Your task to perform on an android device: Open the phone app and click the voicemail tab. Image 0: 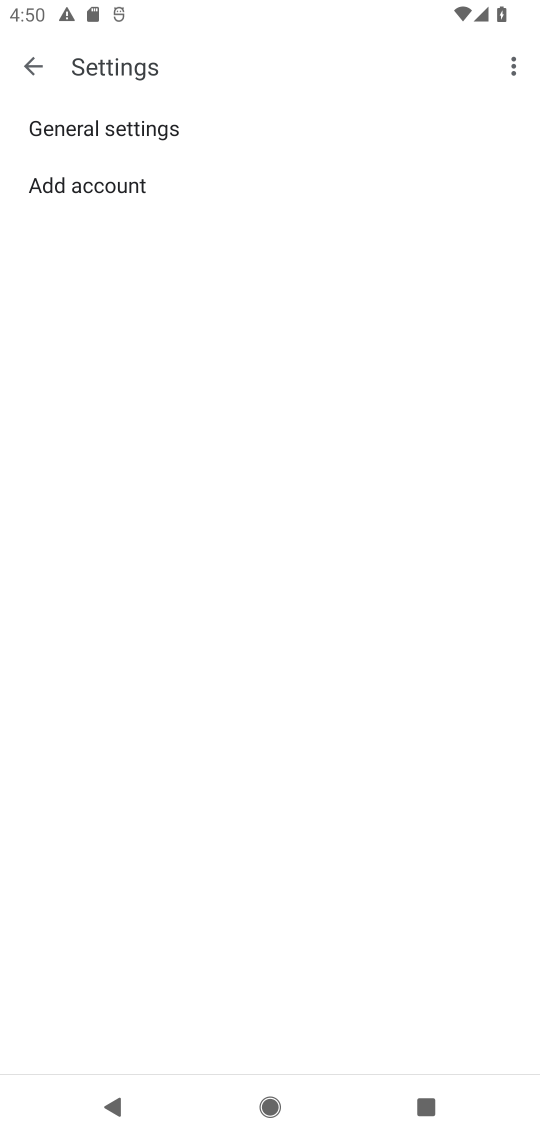
Step 0: press home button
Your task to perform on an android device: Open the phone app and click the voicemail tab. Image 1: 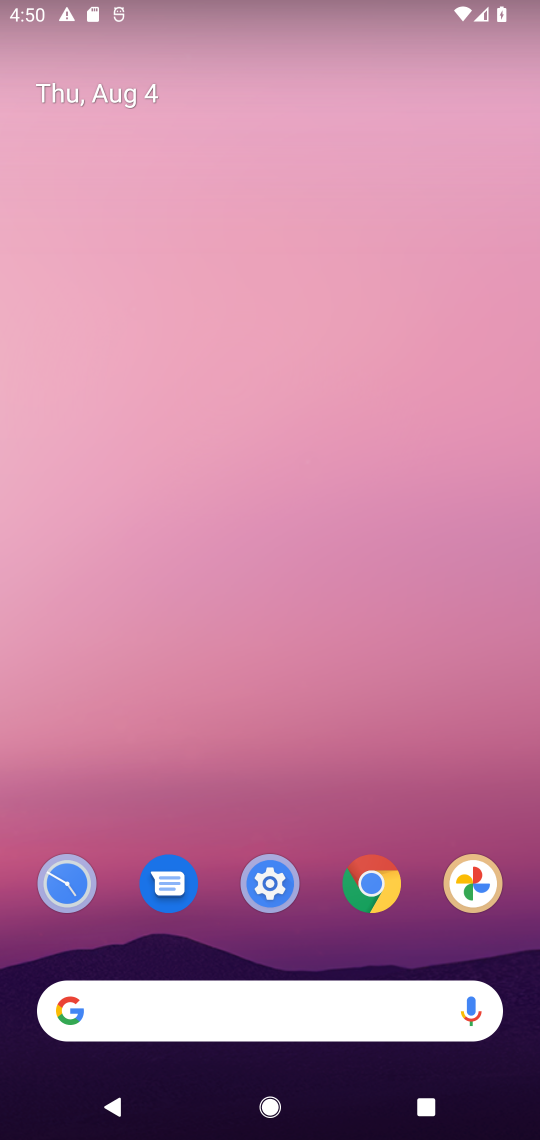
Step 1: drag from (182, 1081) to (183, 113)
Your task to perform on an android device: Open the phone app and click the voicemail tab. Image 2: 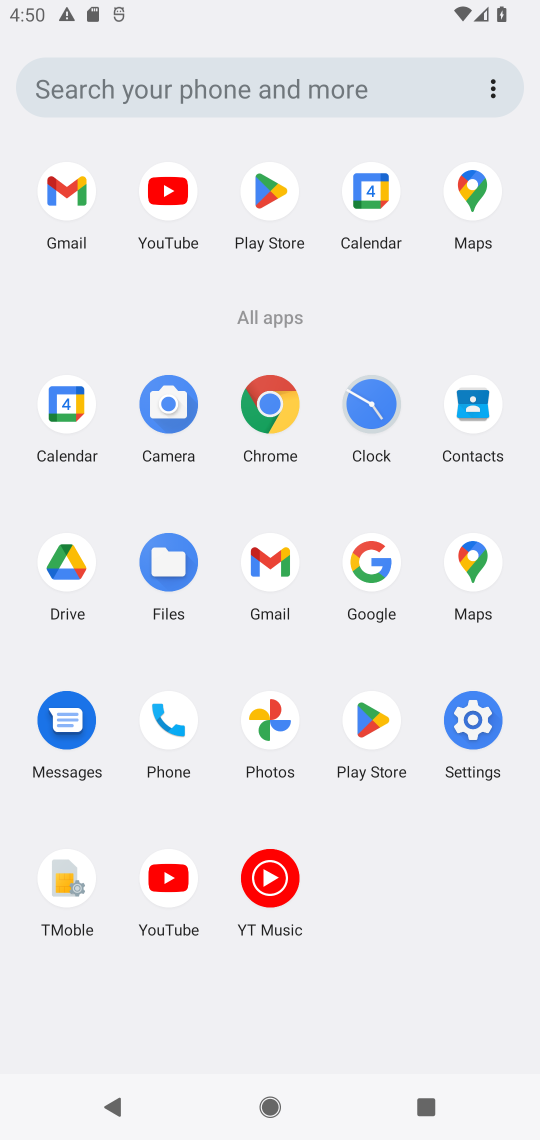
Step 2: click (153, 737)
Your task to perform on an android device: Open the phone app and click the voicemail tab. Image 3: 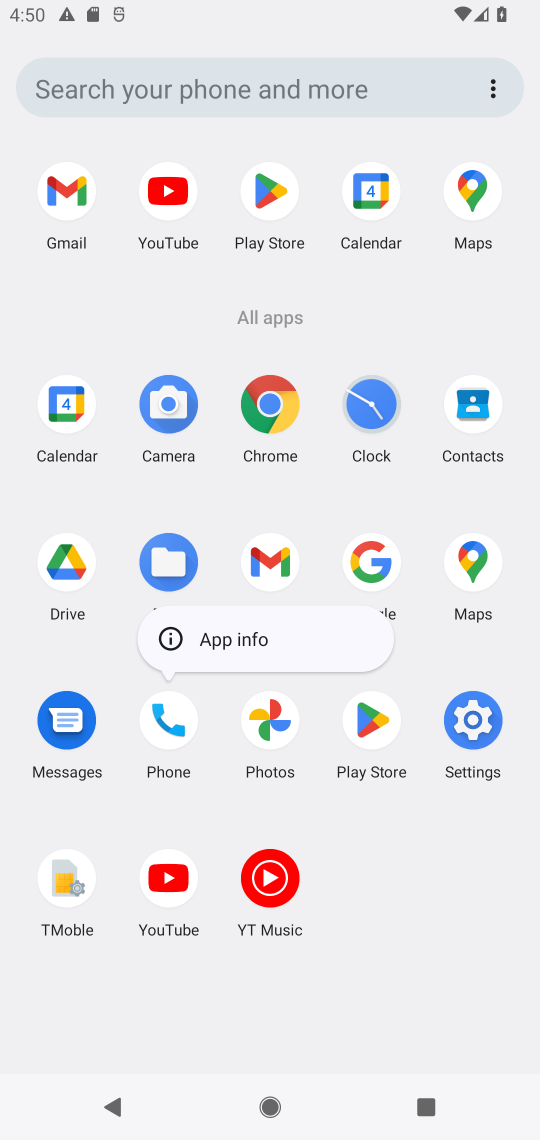
Step 3: click (153, 737)
Your task to perform on an android device: Open the phone app and click the voicemail tab. Image 4: 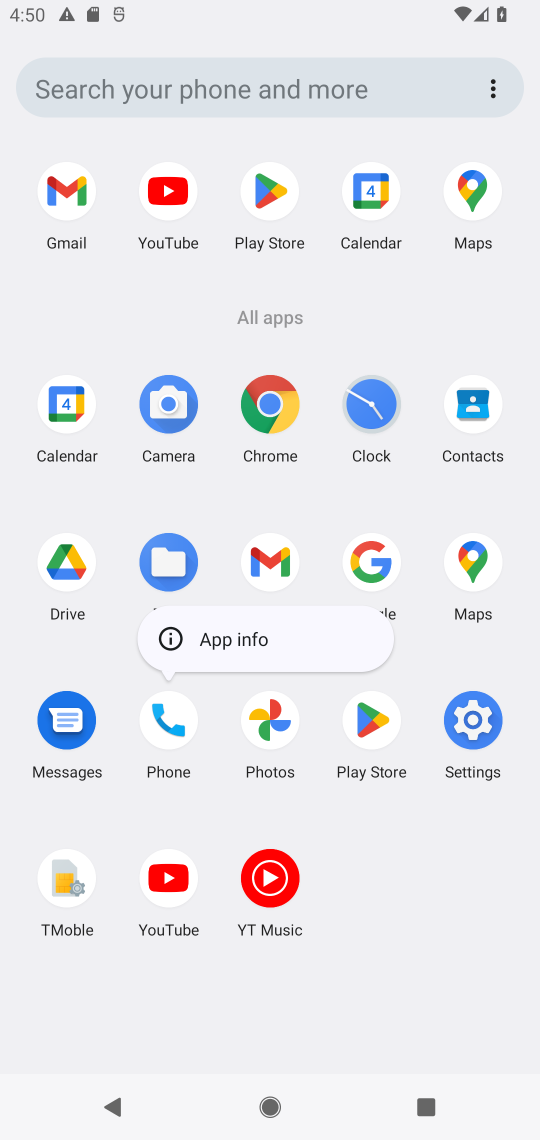
Step 4: click (153, 737)
Your task to perform on an android device: Open the phone app and click the voicemail tab. Image 5: 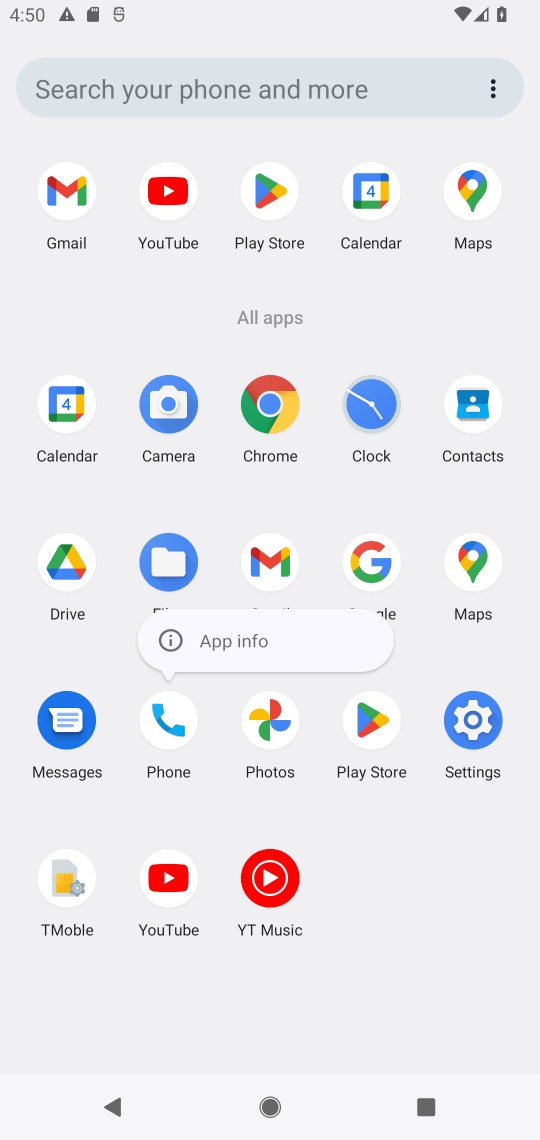
Step 5: click (153, 737)
Your task to perform on an android device: Open the phone app and click the voicemail tab. Image 6: 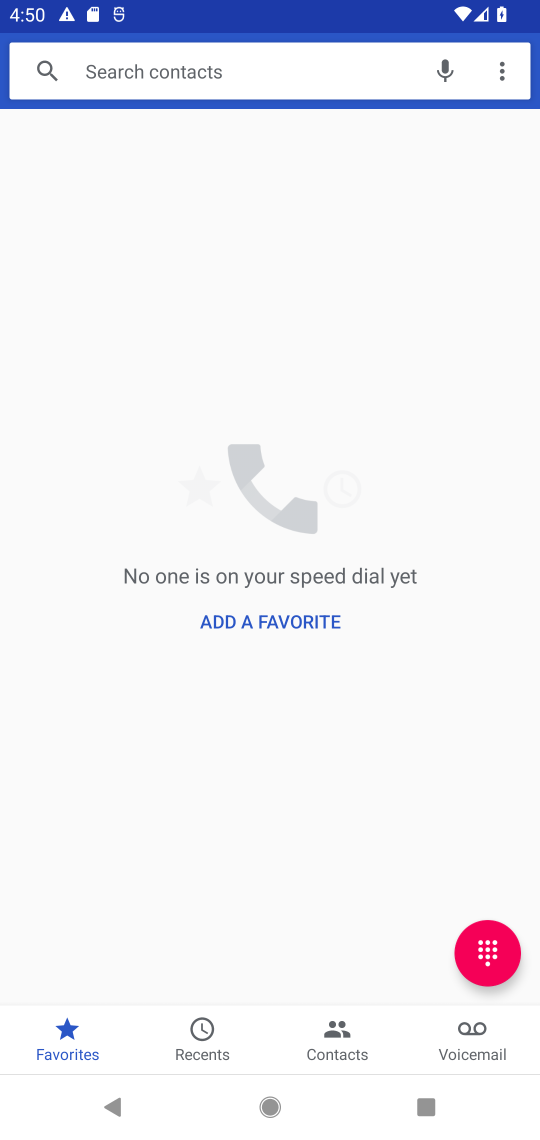
Step 6: click (467, 1058)
Your task to perform on an android device: Open the phone app and click the voicemail tab. Image 7: 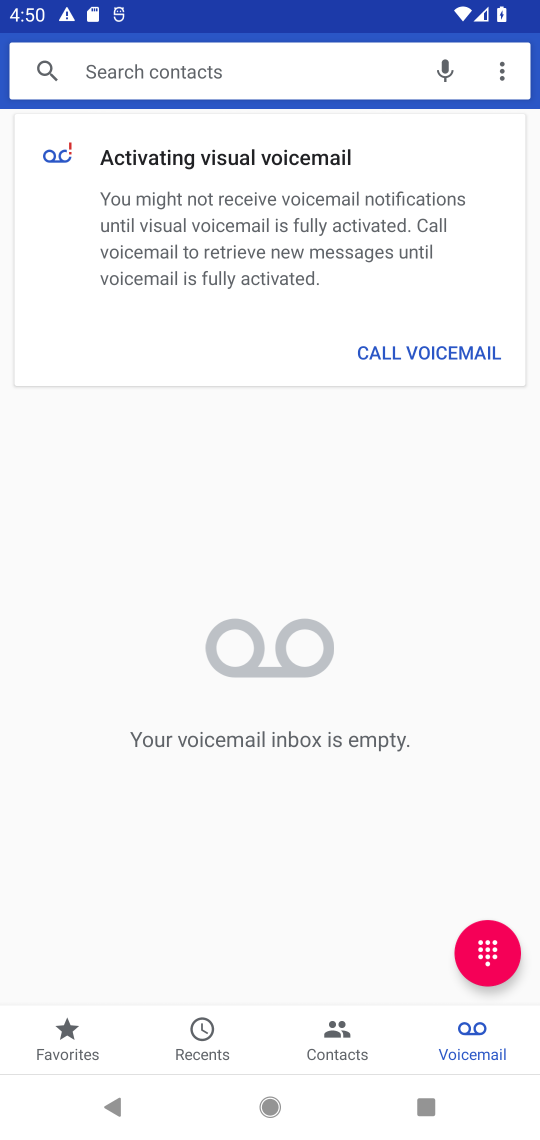
Step 7: task complete